Your task to perform on an android device: open the mobile data screen to see how much data has been used Image 0: 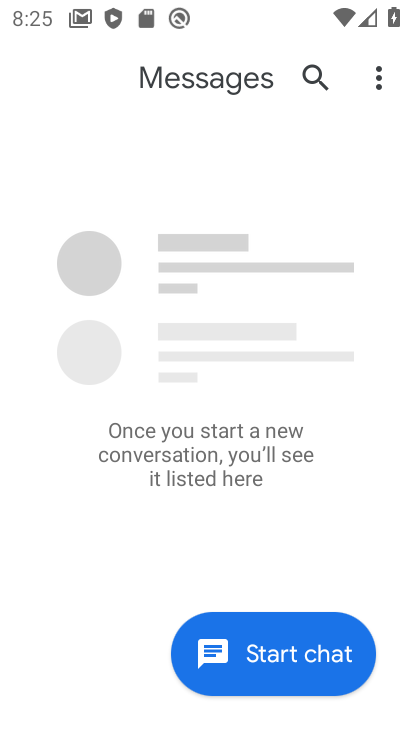
Step 0: press back button
Your task to perform on an android device: open the mobile data screen to see how much data has been used Image 1: 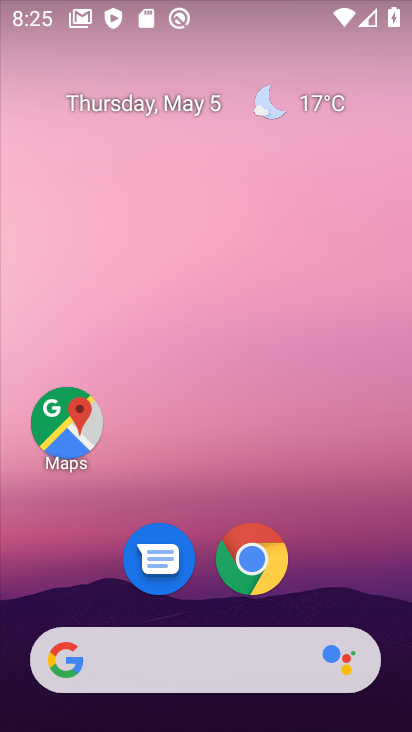
Step 1: drag from (216, 574) to (263, 127)
Your task to perform on an android device: open the mobile data screen to see how much data has been used Image 2: 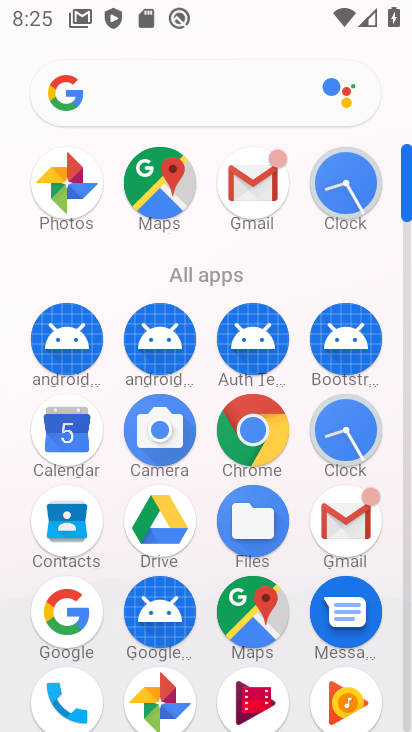
Step 2: drag from (164, 630) to (245, 1)
Your task to perform on an android device: open the mobile data screen to see how much data has been used Image 3: 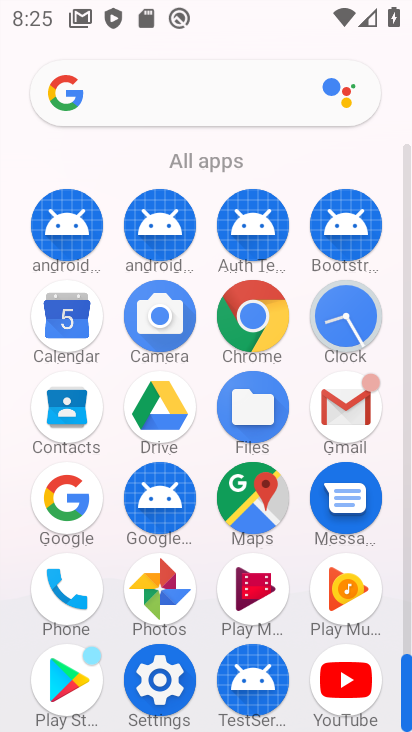
Step 3: click (166, 682)
Your task to perform on an android device: open the mobile data screen to see how much data has been used Image 4: 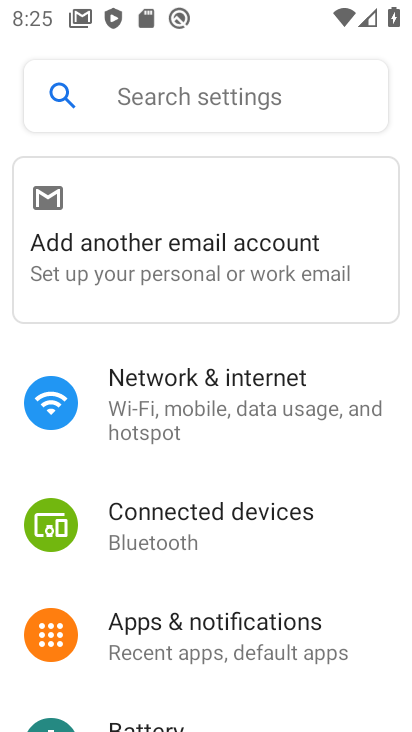
Step 4: click (193, 410)
Your task to perform on an android device: open the mobile data screen to see how much data has been used Image 5: 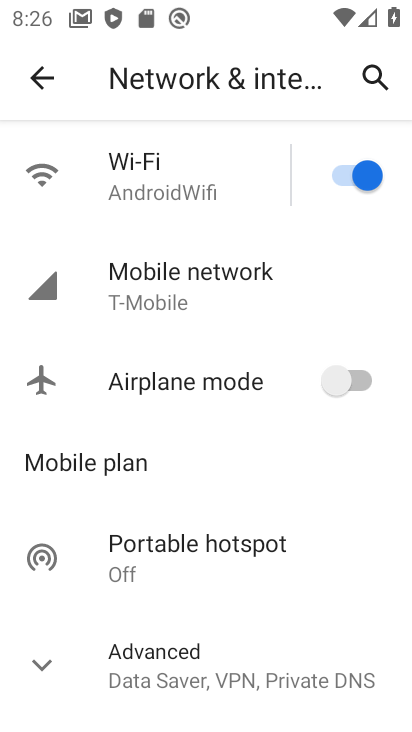
Step 5: drag from (193, 697) to (241, 346)
Your task to perform on an android device: open the mobile data screen to see how much data has been used Image 6: 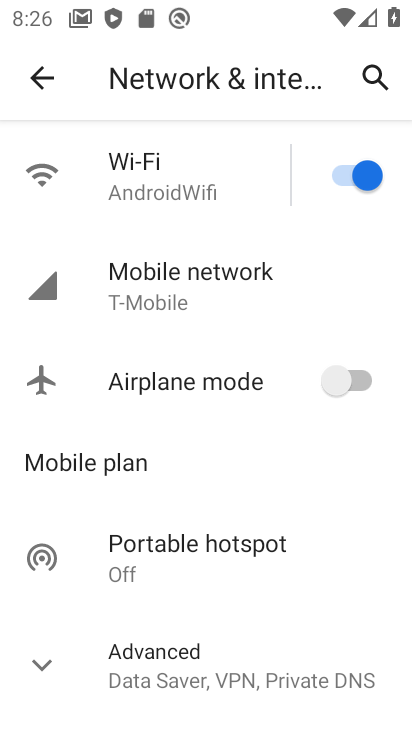
Step 6: click (197, 257)
Your task to perform on an android device: open the mobile data screen to see how much data has been used Image 7: 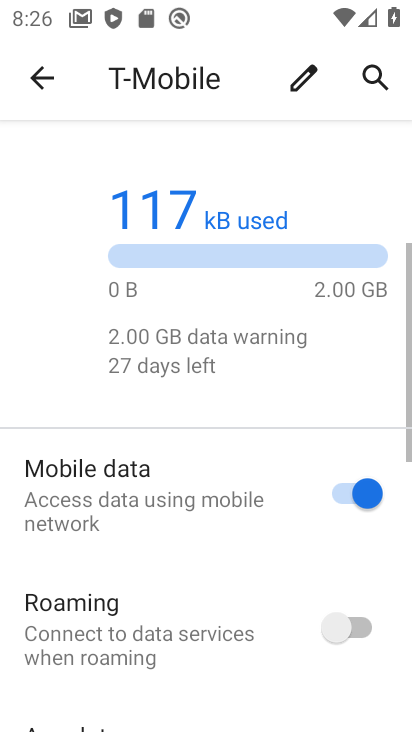
Step 7: drag from (165, 640) to (308, 46)
Your task to perform on an android device: open the mobile data screen to see how much data has been used Image 8: 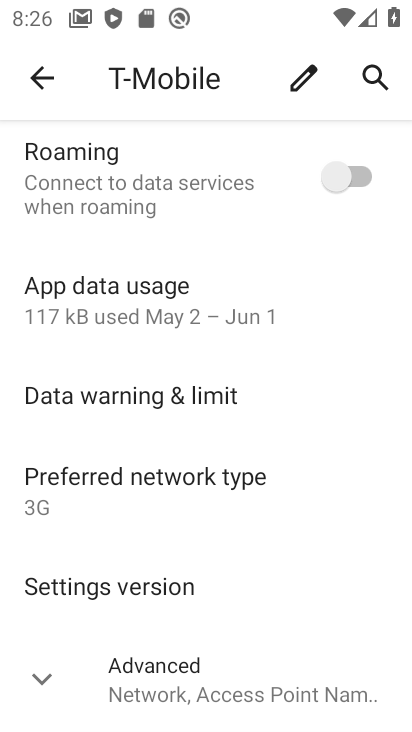
Step 8: click (147, 283)
Your task to perform on an android device: open the mobile data screen to see how much data has been used Image 9: 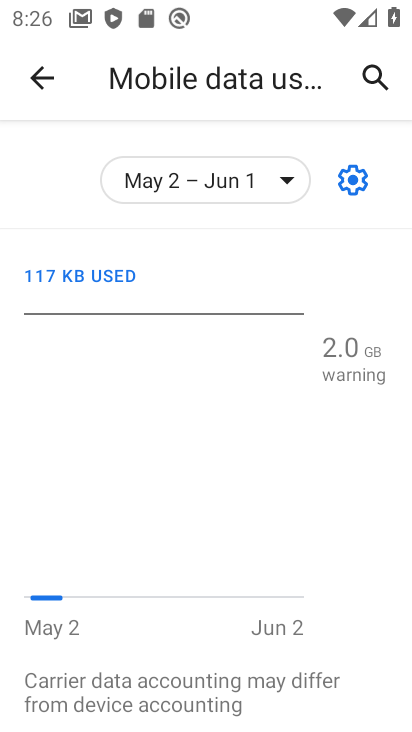
Step 9: task complete